Your task to perform on an android device: When is my next meeting? Image 0: 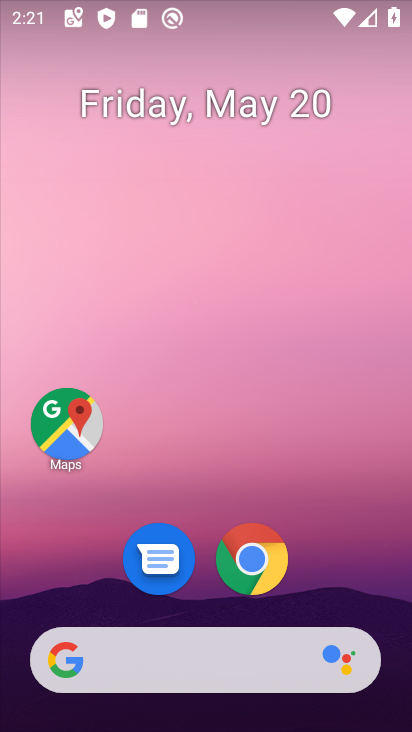
Step 0: drag from (214, 418) to (185, 71)
Your task to perform on an android device: When is my next meeting? Image 1: 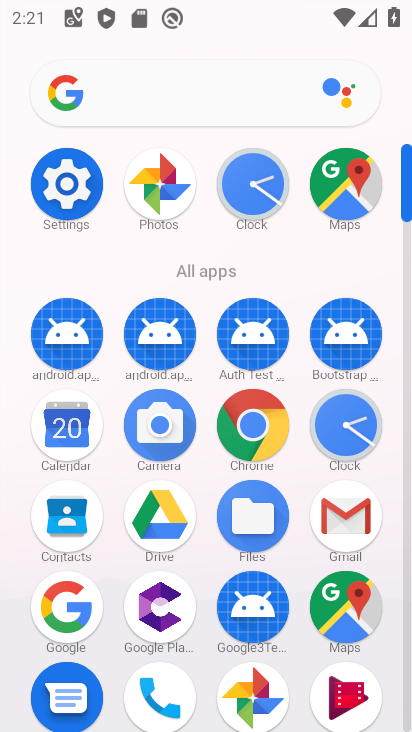
Step 1: click (71, 435)
Your task to perform on an android device: When is my next meeting? Image 2: 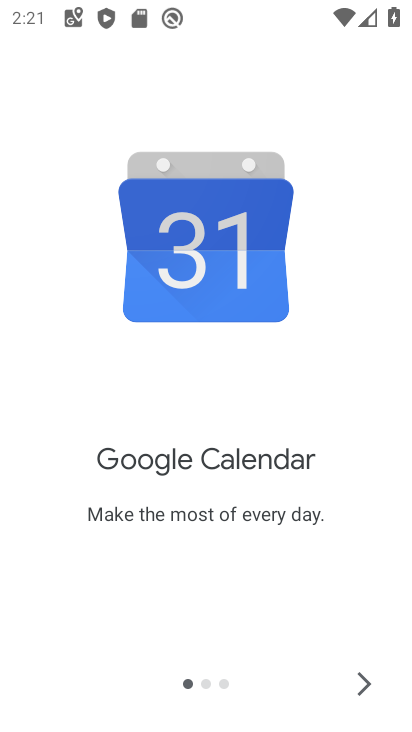
Step 2: click (359, 683)
Your task to perform on an android device: When is my next meeting? Image 3: 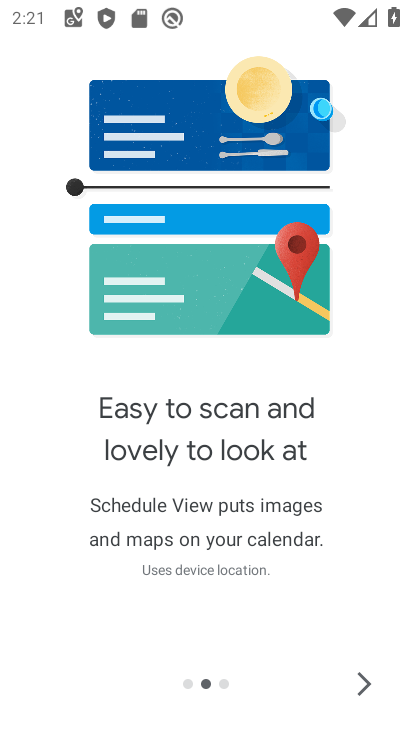
Step 3: click (359, 681)
Your task to perform on an android device: When is my next meeting? Image 4: 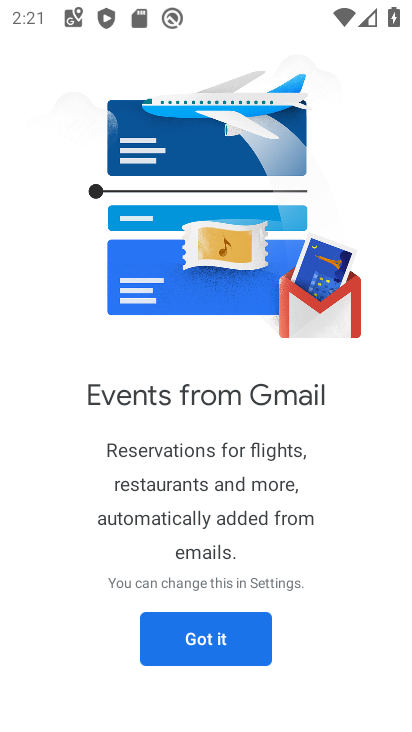
Step 4: click (249, 623)
Your task to perform on an android device: When is my next meeting? Image 5: 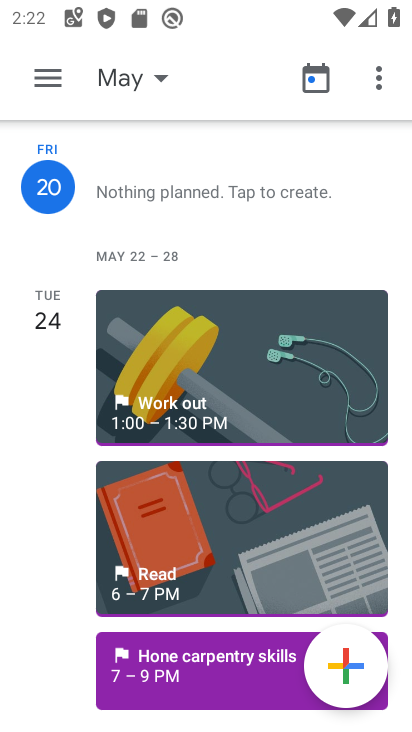
Step 5: task complete